Your task to perform on an android device: Go to sound settings Image 0: 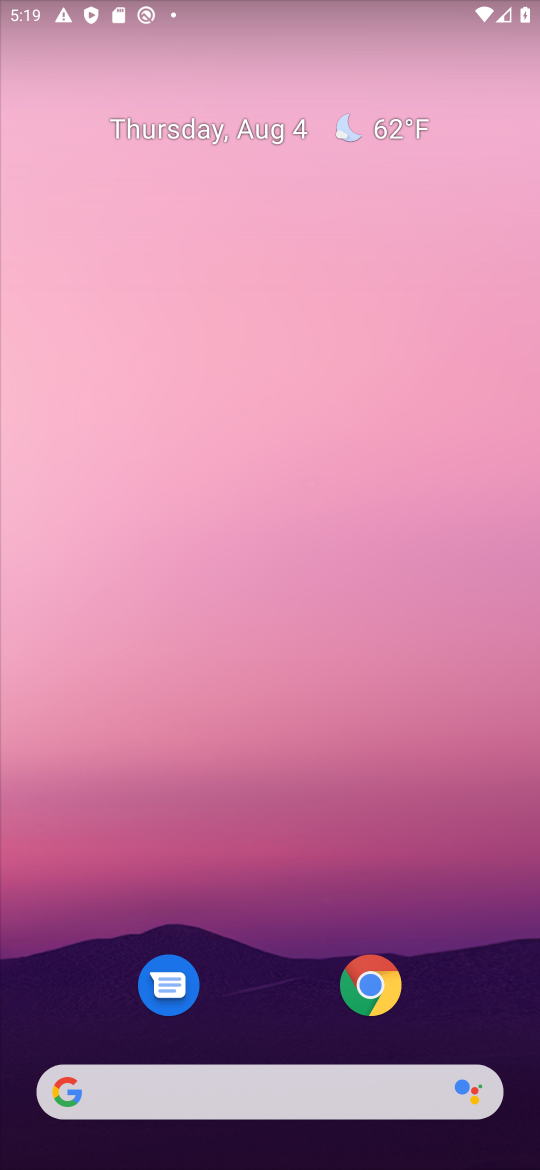
Step 0: drag from (282, 1083) to (349, 312)
Your task to perform on an android device: Go to sound settings Image 1: 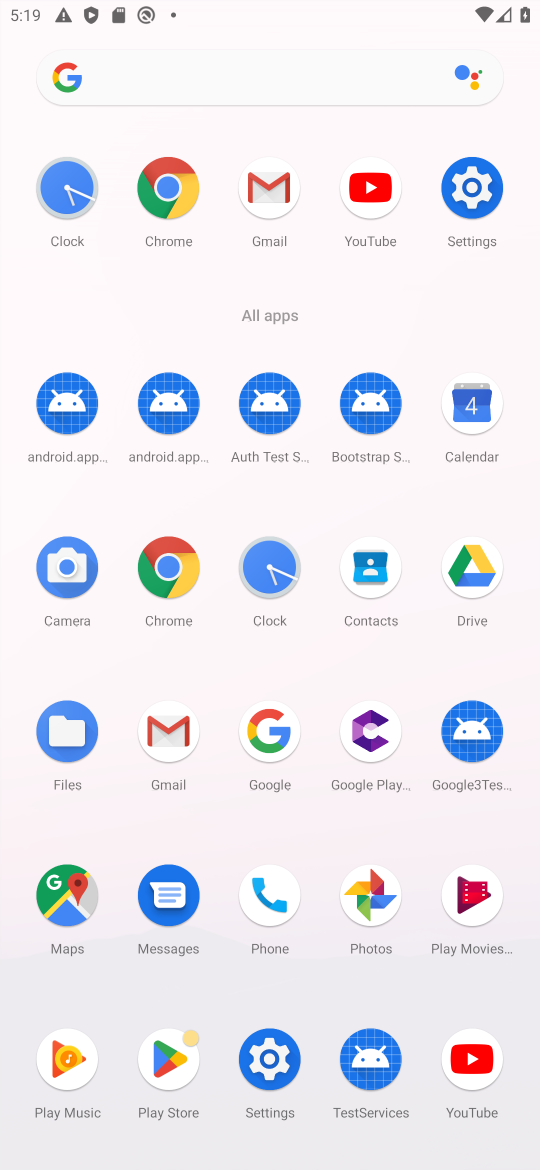
Step 1: click (266, 1065)
Your task to perform on an android device: Go to sound settings Image 2: 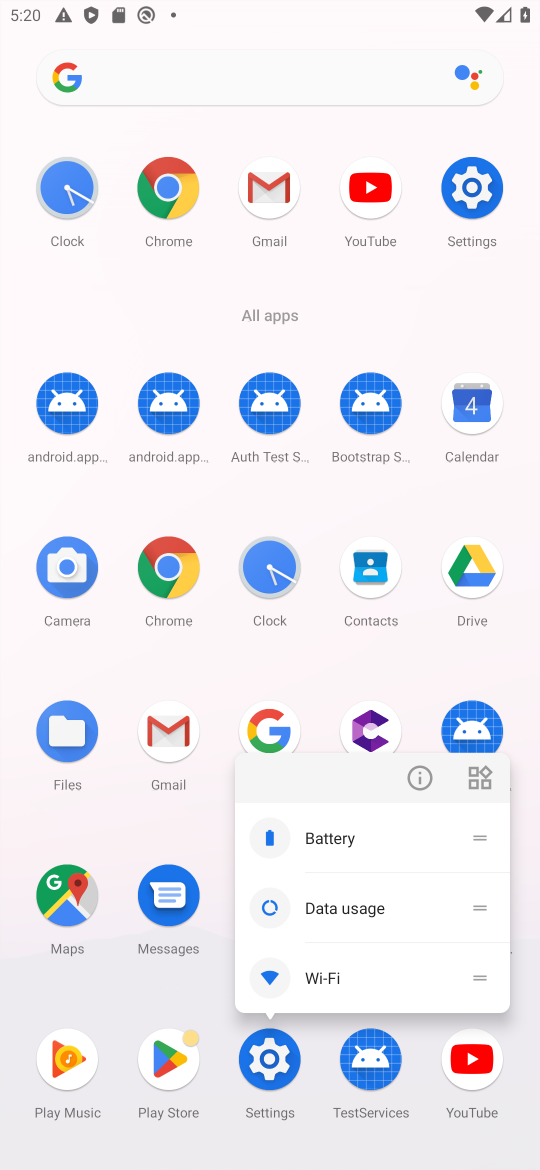
Step 2: click (265, 1065)
Your task to perform on an android device: Go to sound settings Image 3: 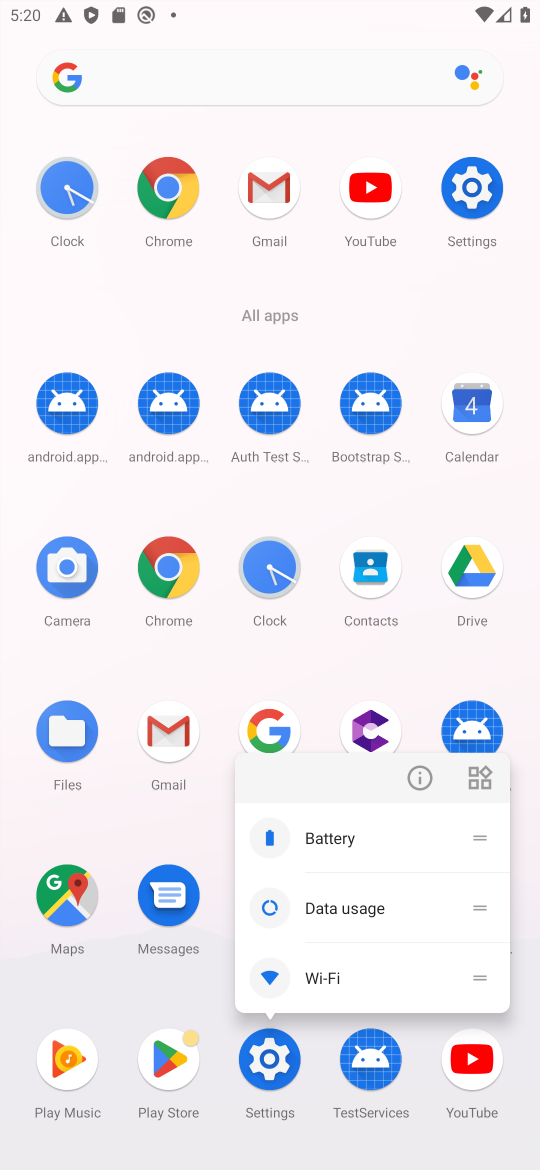
Step 3: click (265, 1065)
Your task to perform on an android device: Go to sound settings Image 4: 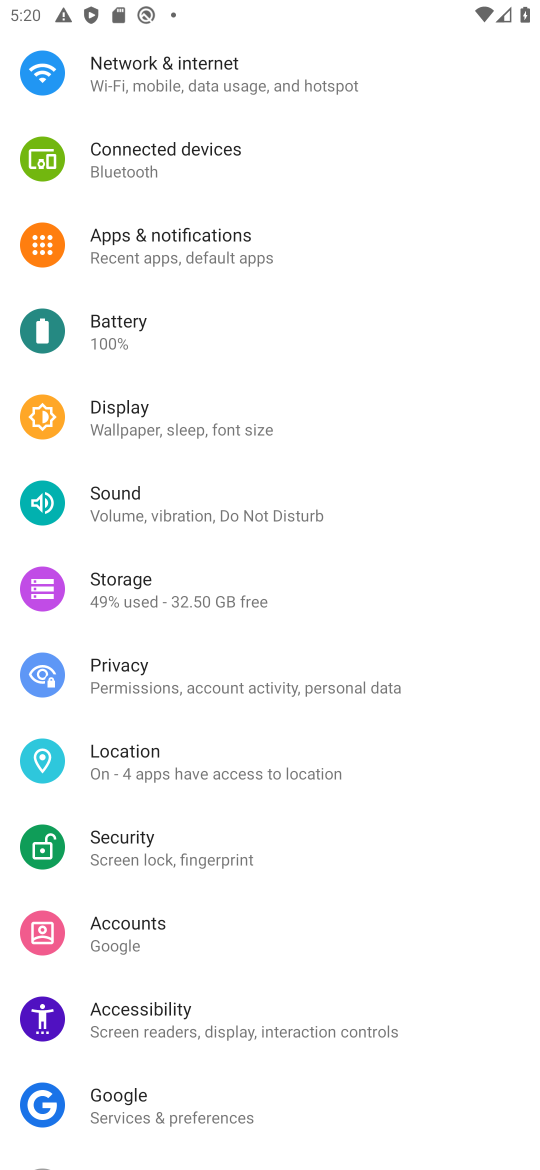
Step 4: click (198, 519)
Your task to perform on an android device: Go to sound settings Image 5: 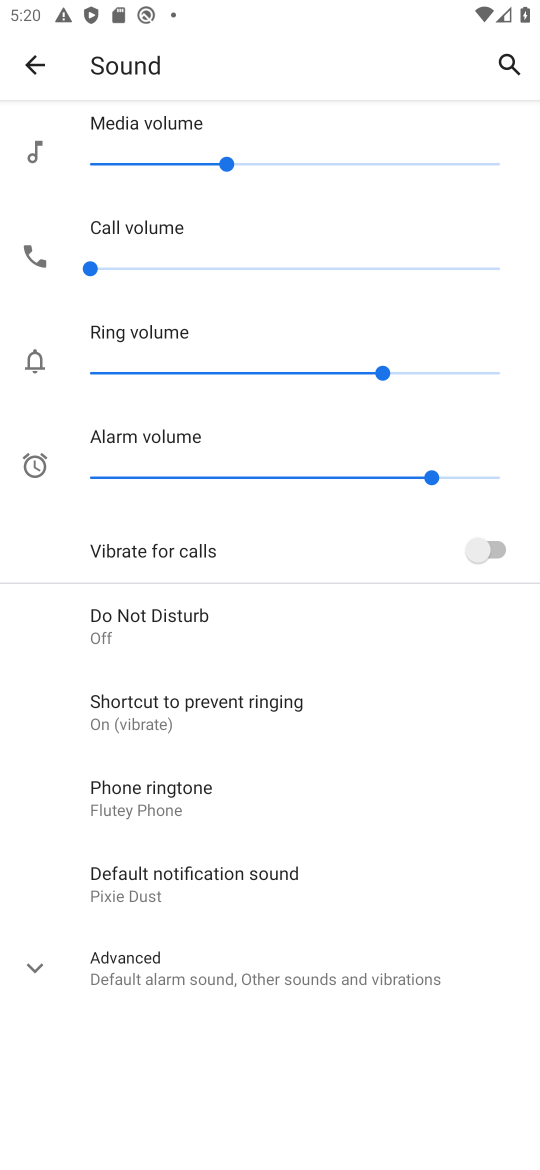
Step 5: task complete